Your task to perform on an android device: Do I have any events today? Image 0: 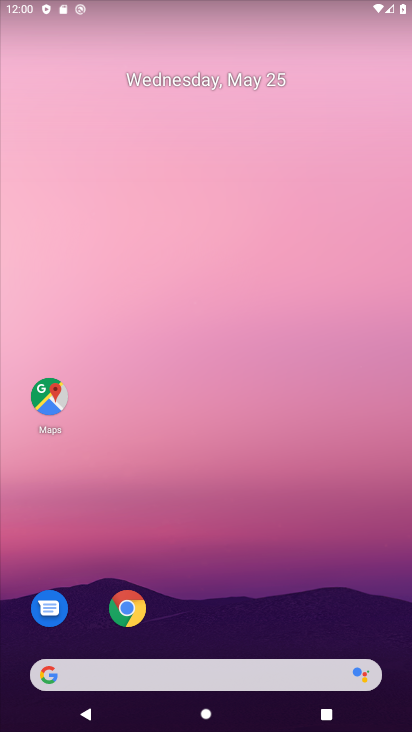
Step 0: drag from (251, 633) to (205, 100)
Your task to perform on an android device: Do I have any events today? Image 1: 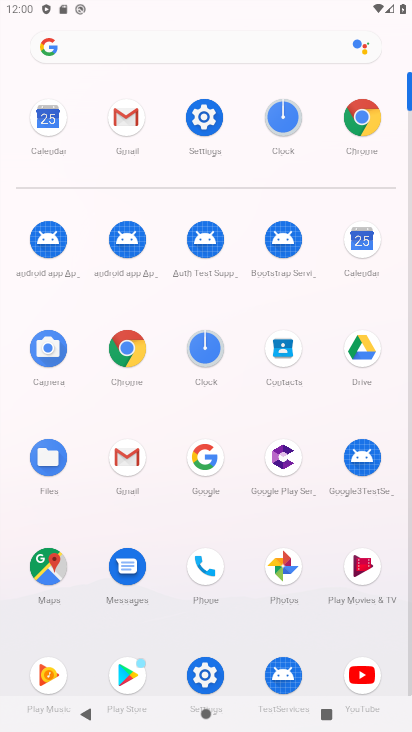
Step 1: click (217, 141)
Your task to perform on an android device: Do I have any events today? Image 2: 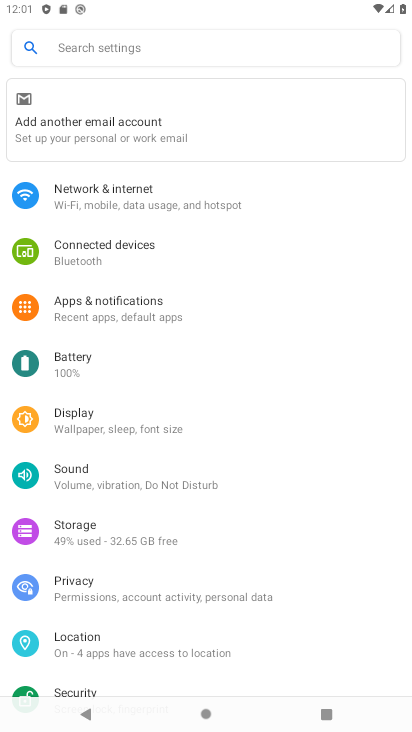
Step 2: press home button
Your task to perform on an android device: Do I have any events today? Image 3: 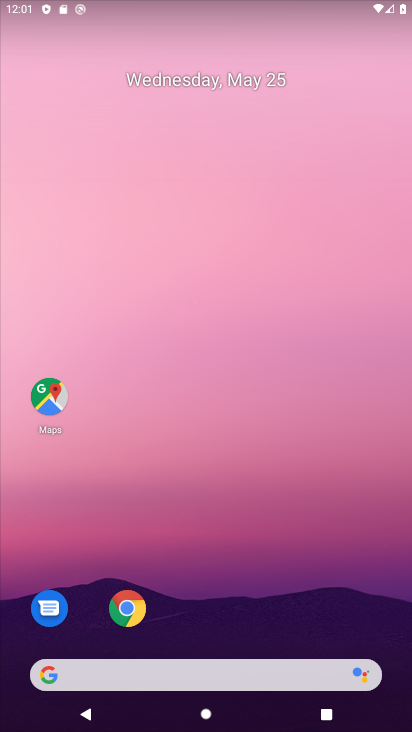
Step 3: drag from (282, 582) to (231, 259)
Your task to perform on an android device: Do I have any events today? Image 4: 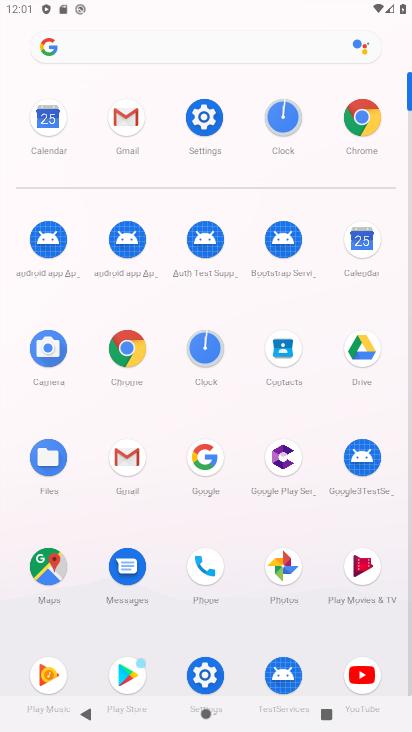
Step 4: click (55, 150)
Your task to perform on an android device: Do I have any events today? Image 5: 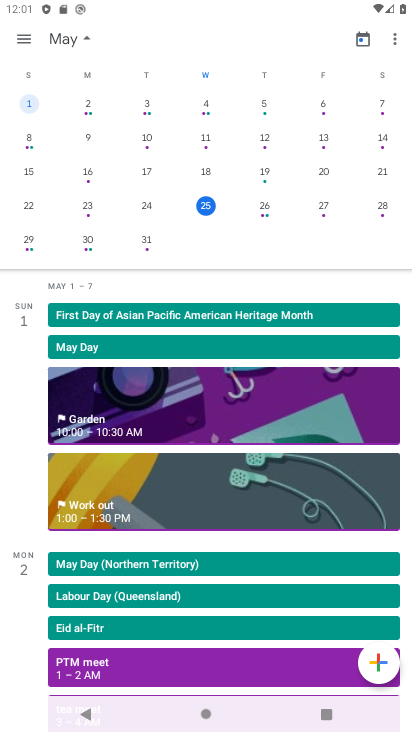
Step 5: task complete